Your task to perform on an android device: turn off translation in the chrome app Image 0: 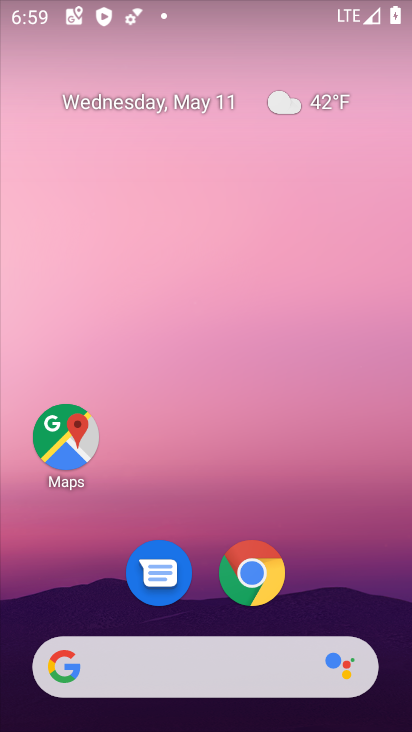
Step 0: drag from (314, 614) to (330, 230)
Your task to perform on an android device: turn off translation in the chrome app Image 1: 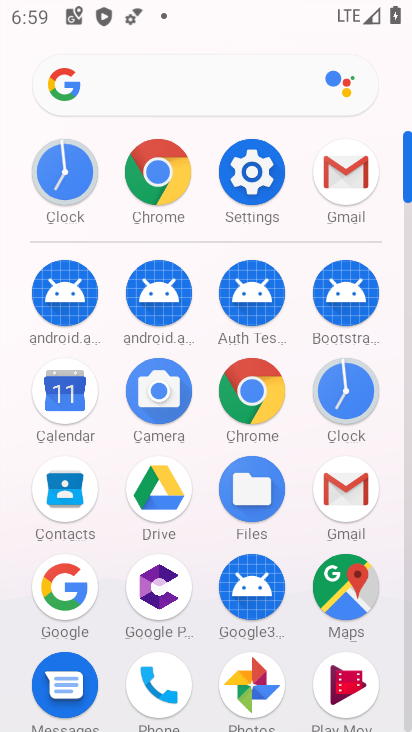
Step 1: click (164, 213)
Your task to perform on an android device: turn off translation in the chrome app Image 2: 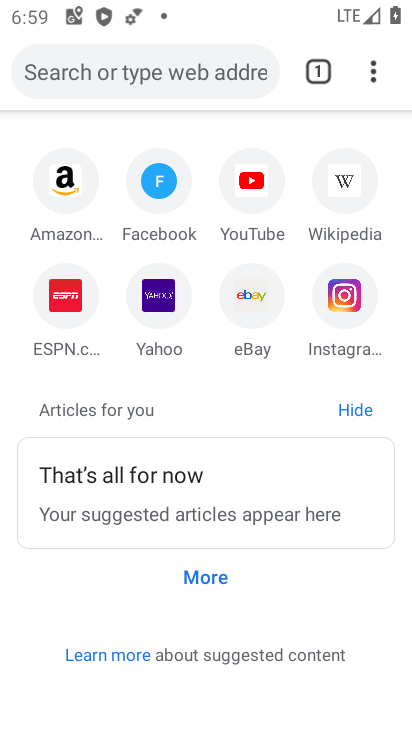
Step 2: click (374, 72)
Your task to perform on an android device: turn off translation in the chrome app Image 3: 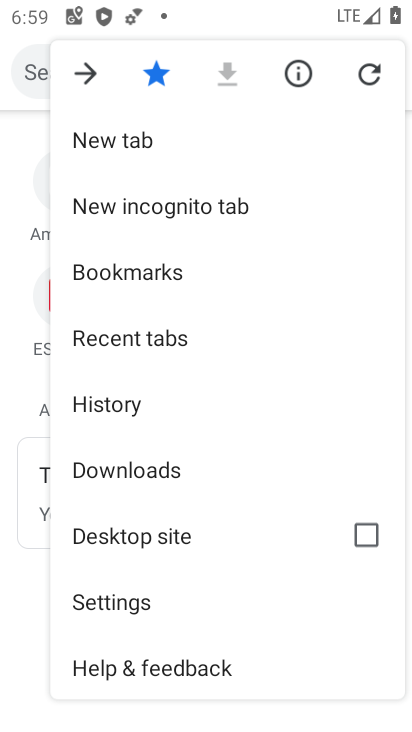
Step 3: click (132, 599)
Your task to perform on an android device: turn off translation in the chrome app Image 4: 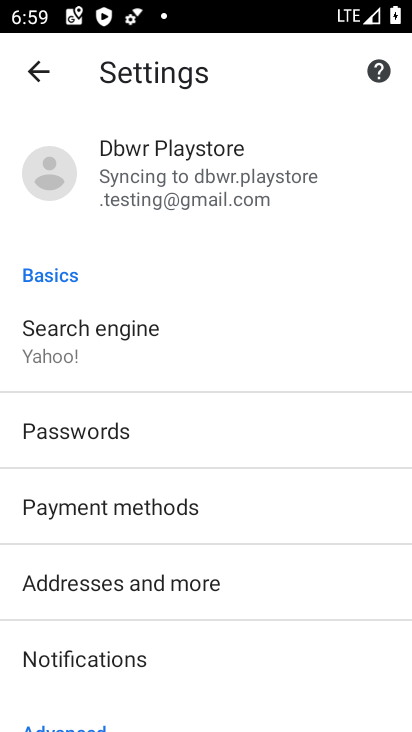
Step 4: drag from (180, 629) to (227, 347)
Your task to perform on an android device: turn off translation in the chrome app Image 5: 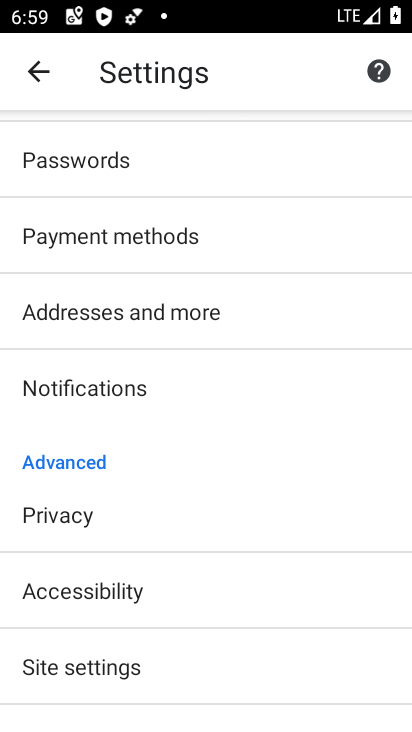
Step 5: drag from (241, 667) to (251, 336)
Your task to perform on an android device: turn off translation in the chrome app Image 6: 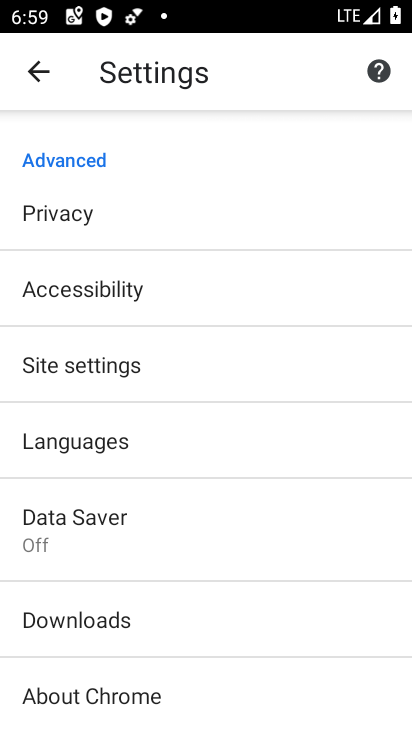
Step 6: click (86, 441)
Your task to perform on an android device: turn off translation in the chrome app Image 7: 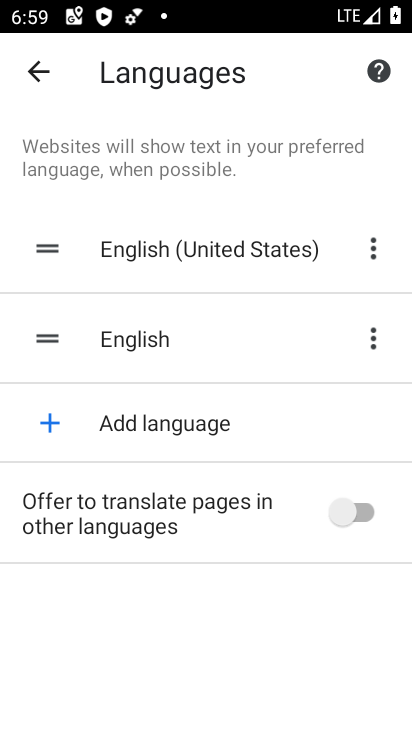
Step 7: task complete